Your task to perform on an android device: Open Google Image 0: 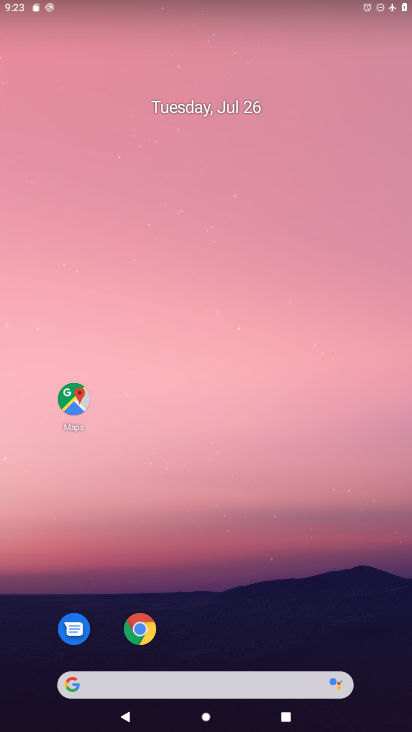
Step 0: click (250, 693)
Your task to perform on an android device: Open Google Image 1: 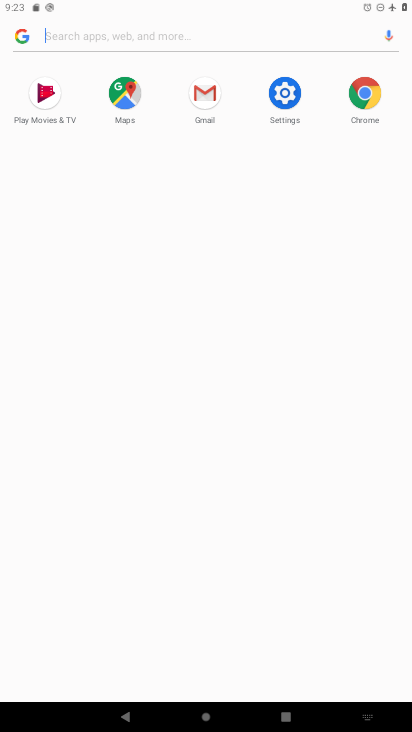
Step 1: task complete